Your task to perform on an android device: Clear all items from cart on ebay.com. Search for "amazon basics triple a" on ebay.com, select the first entry, add it to the cart, then select checkout. Image 0: 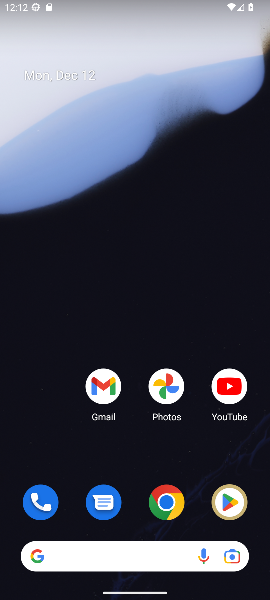
Step 0: click (125, 561)
Your task to perform on an android device: Clear all items from cart on ebay.com. Search for "amazon basics triple a" on ebay.com, select the first entry, add it to the cart, then select checkout. Image 1: 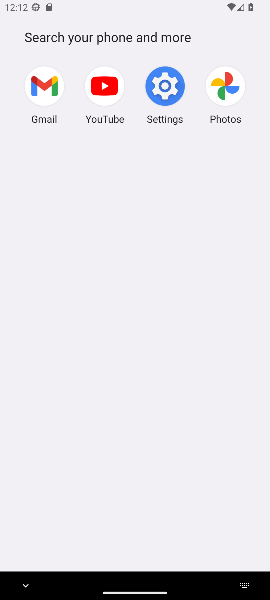
Step 1: press home button
Your task to perform on an android device: Clear all items from cart on ebay.com. Search for "amazon basics triple a" on ebay.com, select the first entry, add it to the cart, then select checkout. Image 2: 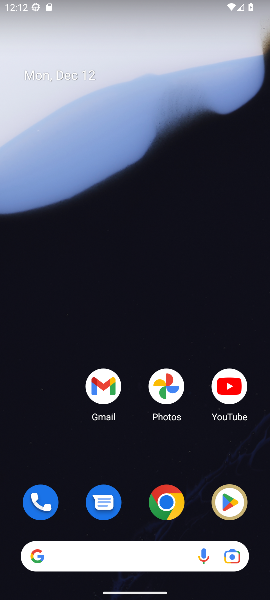
Step 2: click (162, 574)
Your task to perform on an android device: Clear all items from cart on ebay.com. Search for "amazon basics triple a" on ebay.com, select the first entry, add it to the cart, then select checkout. Image 3: 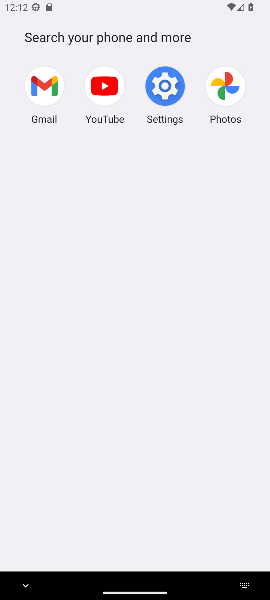
Step 3: press home button
Your task to perform on an android device: Clear all items from cart on ebay.com. Search for "amazon basics triple a" on ebay.com, select the first entry, add it to the cart, then select checkout. Image 4: 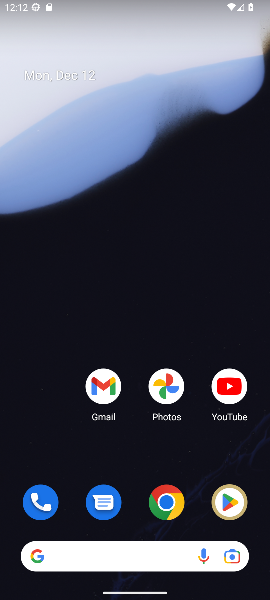
Step 4: click (158, 494)
Your task to perform on an android device: Clear all items from cart on ebay.com. Search for "amazon basics triple a" on ebay.com, select the first entry, add it to the cart, then select checkout. Image 5: 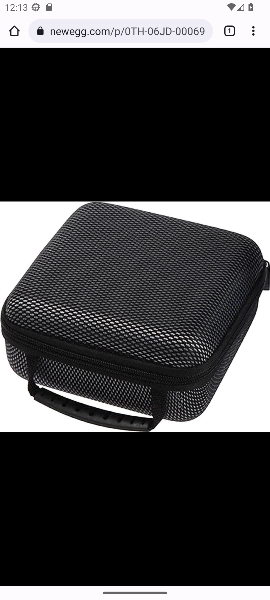
Step 5: click (131, 39)
Your task to perform on an android device: Clear all items from cart on ebay.com. Search for "amazon basics triple a" on ebay.com, select the first entry, add it to the cart, then select checkout. Image 6: 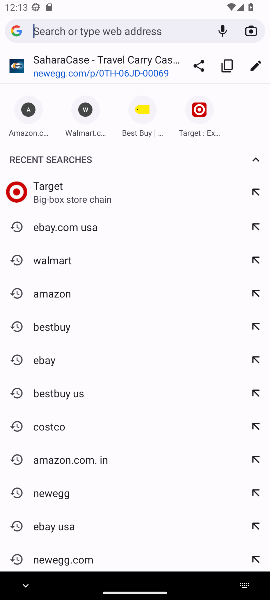
Step 6: click (79, 229)
Your task to perform on an android device: Clear all items from cart on ebay.com. Search for "amazon basics triple a" on ebay.com, select the first entry, add it to the cart, then select checkout. Image 7: 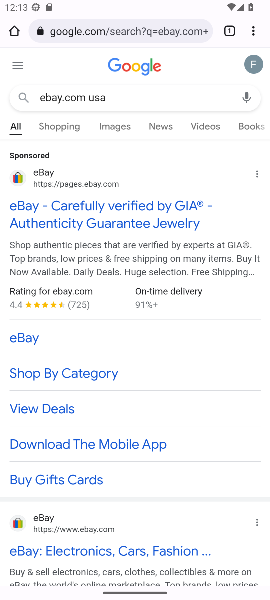
Step 7: click (94, 217)
Your task to perform on an android device: Clear all items from cart on ebay.com. Search for "amazon basics triple a" on ebay.com, select the first entry, add it to the cart, then select checkout. Image 8: 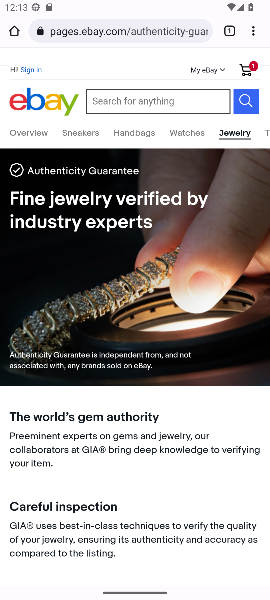
Step 8: click (144, 103)
Your task to perform on an android device: Clear all items from cart on ebay.com. Search for "amazon basics triple a" on ebay.com, select the first entry, add it to the cart, then select checkout. Image 9: 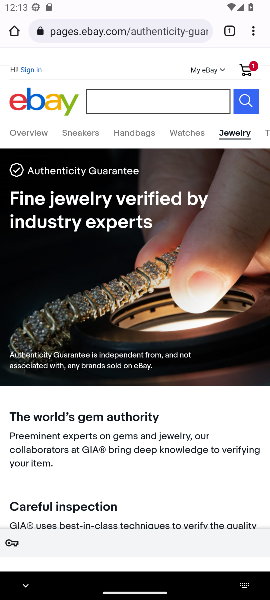
Step 9: type "amazon basic triple a"
Your task to perform on an android device: Clear all items from cart on ebay.com. Search for "amazon basics triple a" on ebay.com, select the first entry, add it to the cart, then select checkout. Image 10: 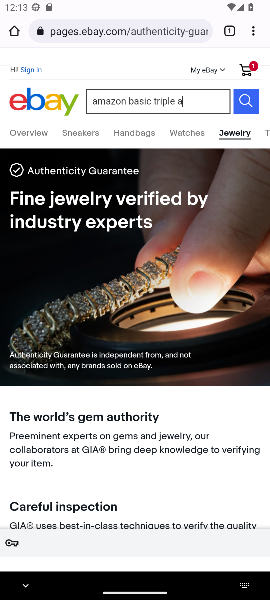
Step 10: click (247, 101)
Your task to perform on an android device: Clear all items from cart on ebay.com. Search for "amazon basics triple a" on ebay.com, select the first entry, add it to the cart, then select checkout. Image 11: 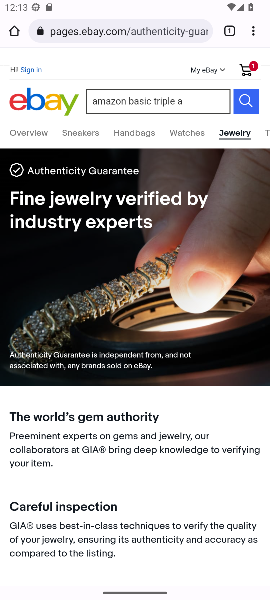
Step 11: click (52, 100)
Your task to perform on an android device: Clear all items from cart on ebay.com. Search for "amazon basics triple a" on ebay.com, select the first entry, add it to the cart, then select checkout. Image 12: 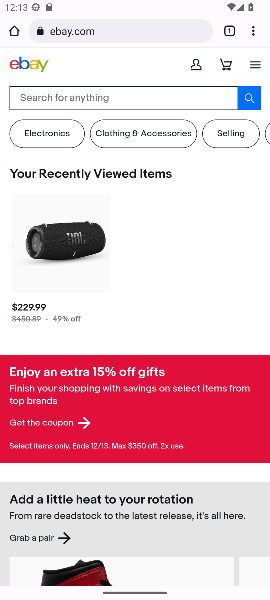
Step 12: click (61, 98)
Your task to perform on an android device: Clear all items from cart on ebay.com. Search for "amazon basics triple a" on ebay.com, select the first entry, add it to the cart, then select checkout. Image 13: 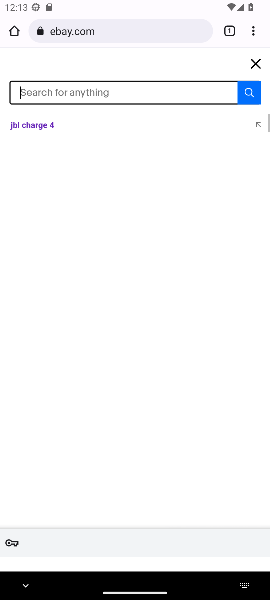
Step 13: type "amazon basics triple a"
Your task to perform on an android device: Clear all items from cart on ebay.com. Search for "amazon basics triple a" on ebay.com, select the first entry, add it to the cart, then select checkout. Image 14: 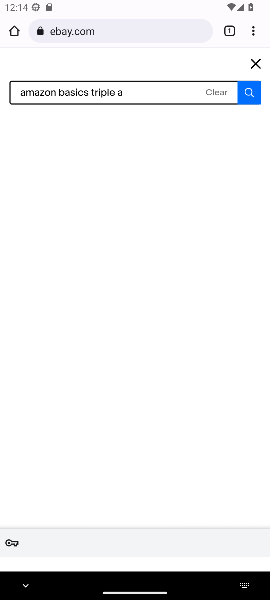
Step 14: click (252, 94)
Your task to perform on an android device: Clear all items from cart on ebay.com. Search for "amazon basics triple a" on ebay.com, select the first entry, add it to the cart, then select checkout. Image 15: 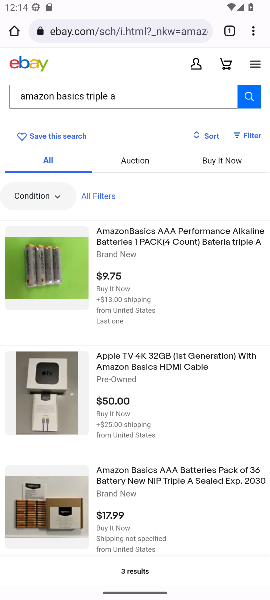
Step 15: click (144, 234)
Your task to perform on an android device: Clear all items from cart on ebay.com. Search for "amazon basics triple a" on ebay.com, select the first entry, add it to the cart, then select checkout. Image 16: 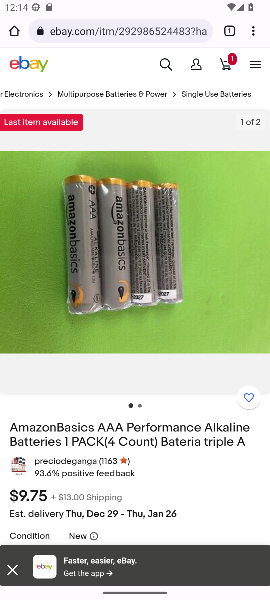
Step 16: drag from (173, 504) to (169, 231)
Your task to perform on an android device: Clear all items from cart on ebay.com. Search for "amazon basics triple a" on ebay.com, select the first entry, add it to the cart, then select checkout. Image 17: 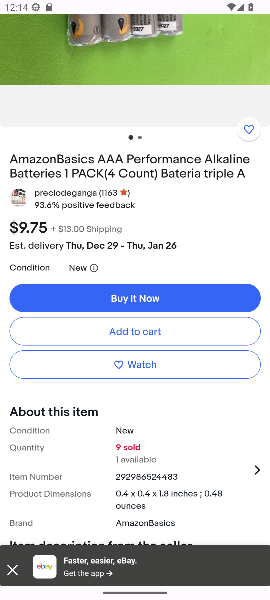
Step 17: click (165, 326)
Your task to perform on an android device: Clear all items from cart on ebay.com. Search for "amazon basics triple a" on ebay.com, select the first entry, add it to the cart, then select checkout. Image 18: 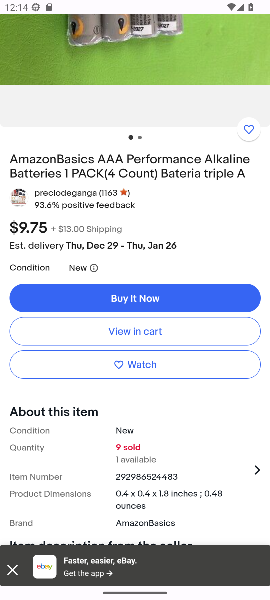
Step 18: task complete